Your task to perform on an android device: change the clock display to digital Image 0: 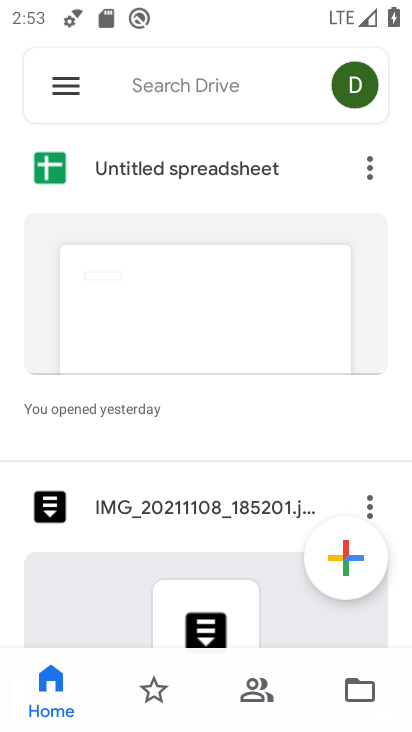
Step 0: press home button
Your task to perform on an android device: change the clock display to digital Image 1: 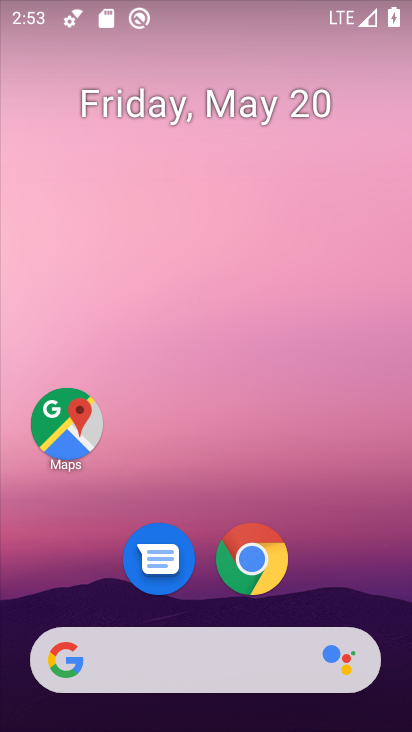
Step 1: drag from (248, 459) to (250, 63)
Your task to perform on an android device: change the clock display to digital Image 2: 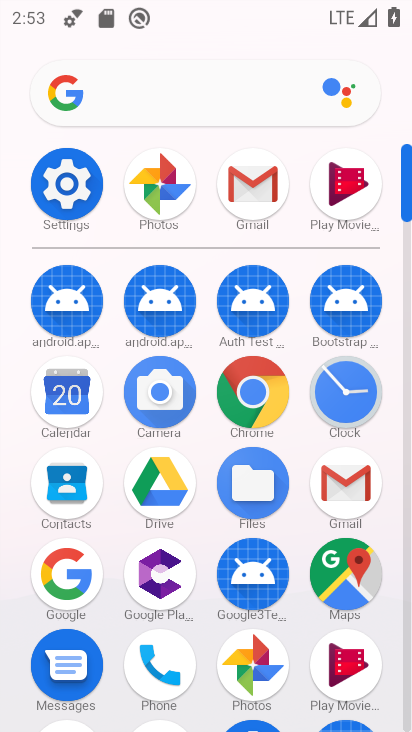
Step 2: click (333, 399)
Your task to perform on an android device: change the clock display to digital Image 3: 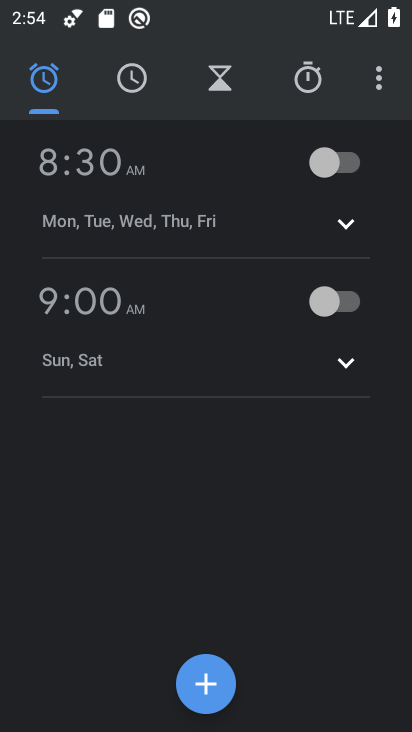
Step 3: click (140, 80)
Your task to perform on an android device: change the clock display to digital Image 4: 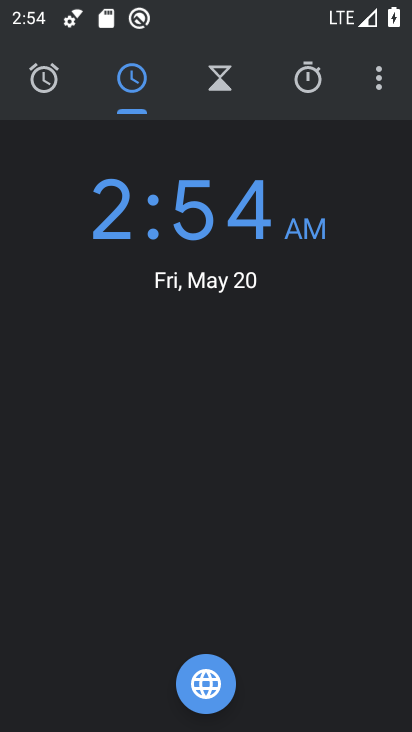
Step 4: click (382, 80)
Your task to perform on an android device: change the clock display to digital Image 5: 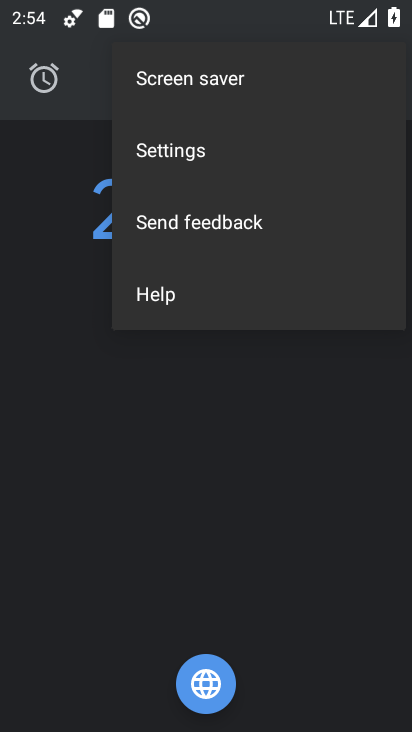
Step 5: click (242, 149)
Your task to perform on an android device: change the clock display to digital Image 6: 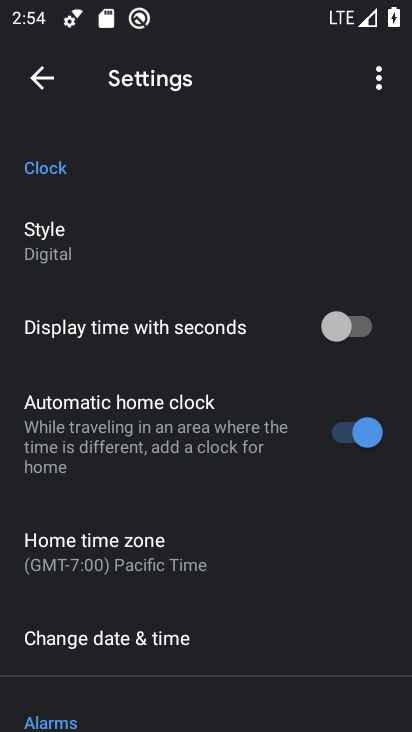
Step 6: task complete